Your task to perform on an android device: uninstall "PlayWell" Image 0: 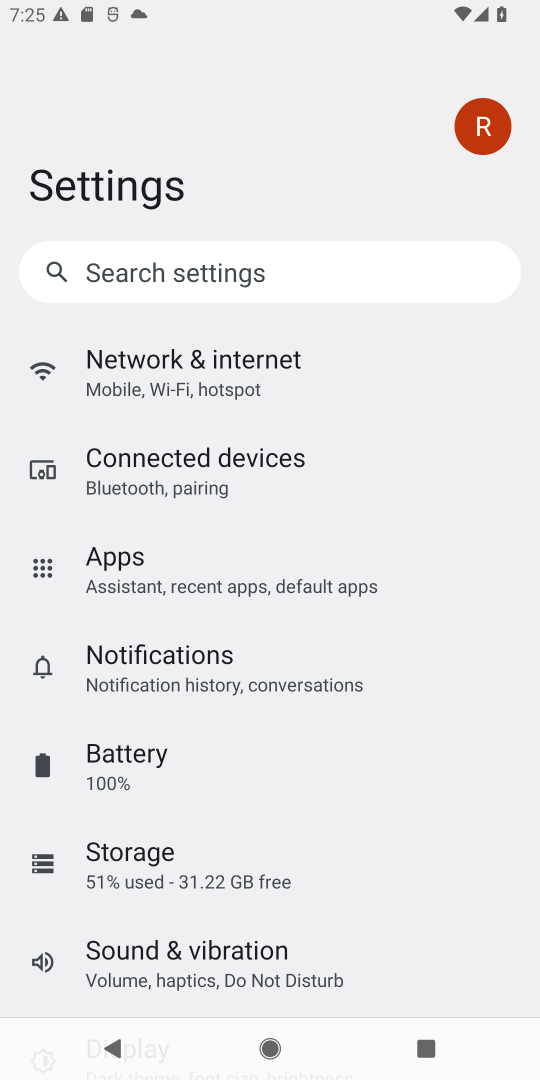
Step 0: press home button
Your task to perform on an android device: uninstall "PlayWell" Image 1: 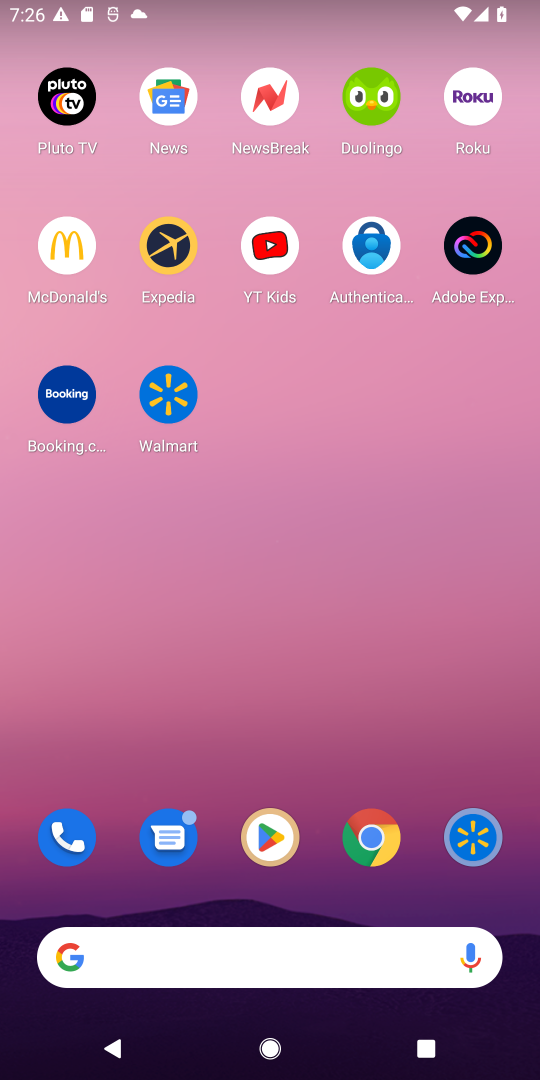
Step 1: click (268, 838)
Your task to perform on an android device: uninstall "PlayWell" Image 2: 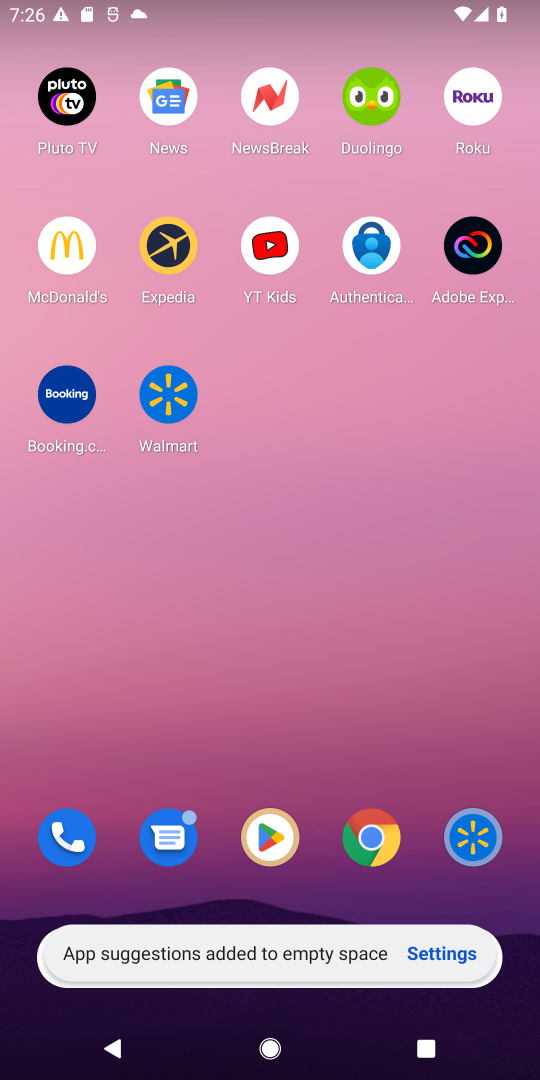
Step 2: click (258, 845)
Your task to perform on an android device: uninstall "PlayWell" Image 3: 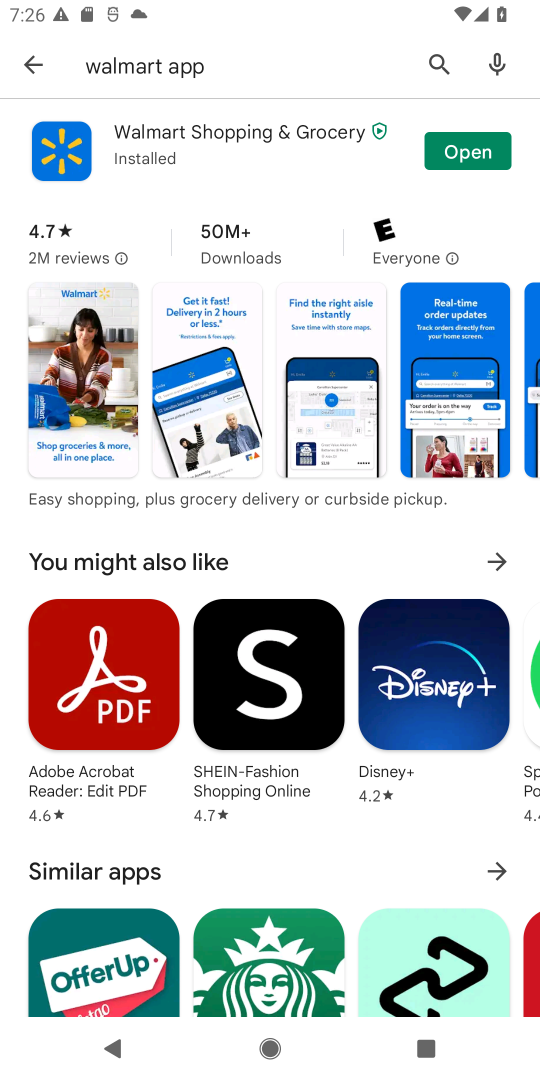
Step 3: click (213, 69)
Your task to perform on an android device: uninstall "PlayWell" Image 4: 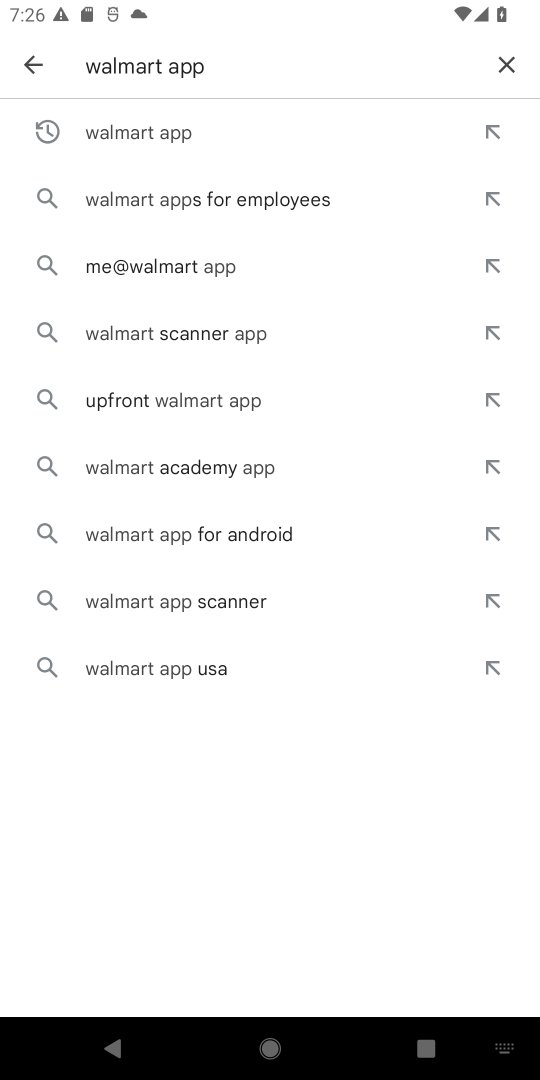
Step 4: click (509, 59)
Your task to perform on an android device: uninstall "PlayWell" Image 5: 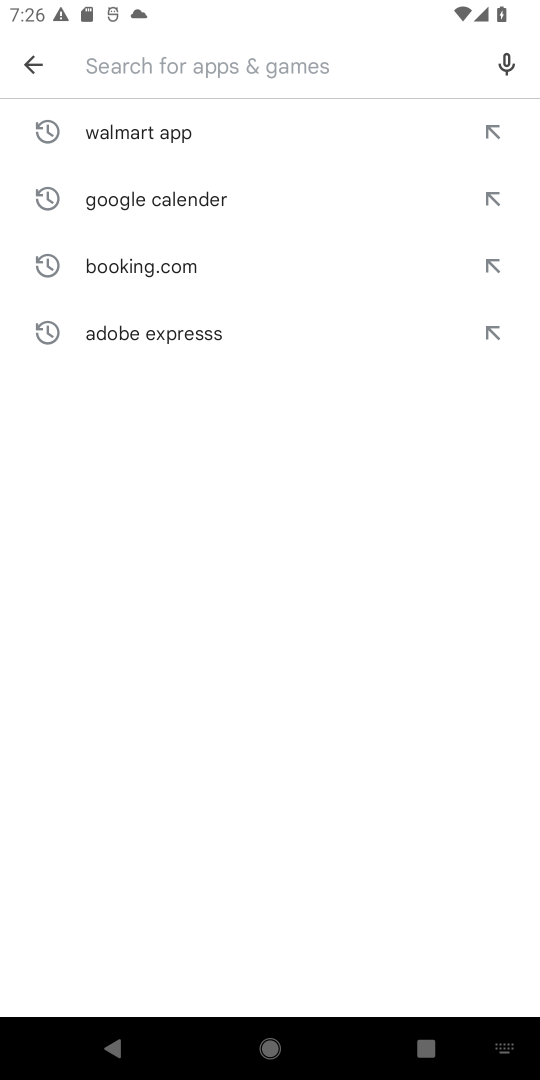
Step 5: type "PLaywell"
Your task to perform on an android device: uninstall "PlayWell" Image 6: 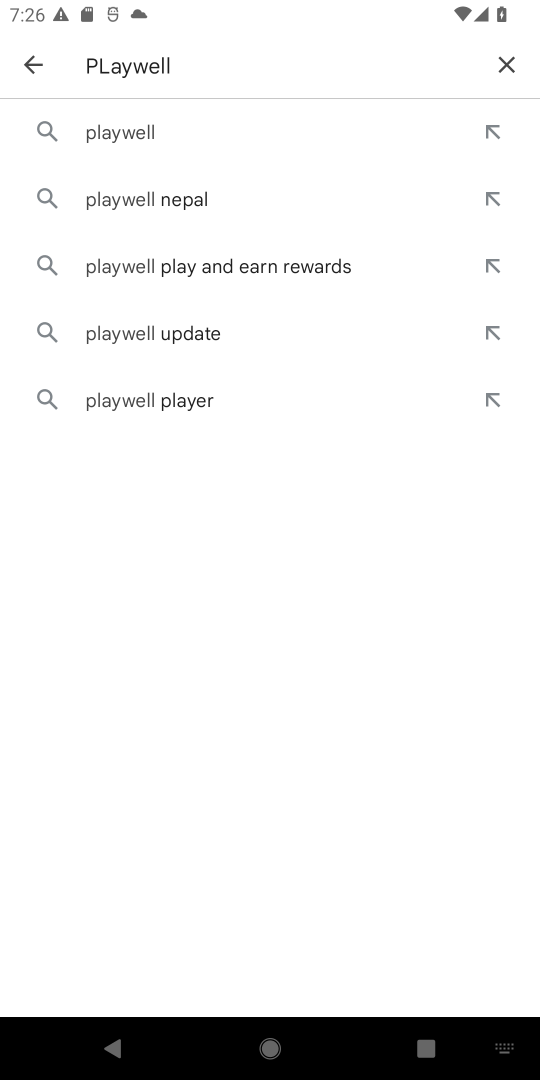
Step 6: click (162, 137)
Your task to perform on an android device: uninstall "PlayWell" Image 7: 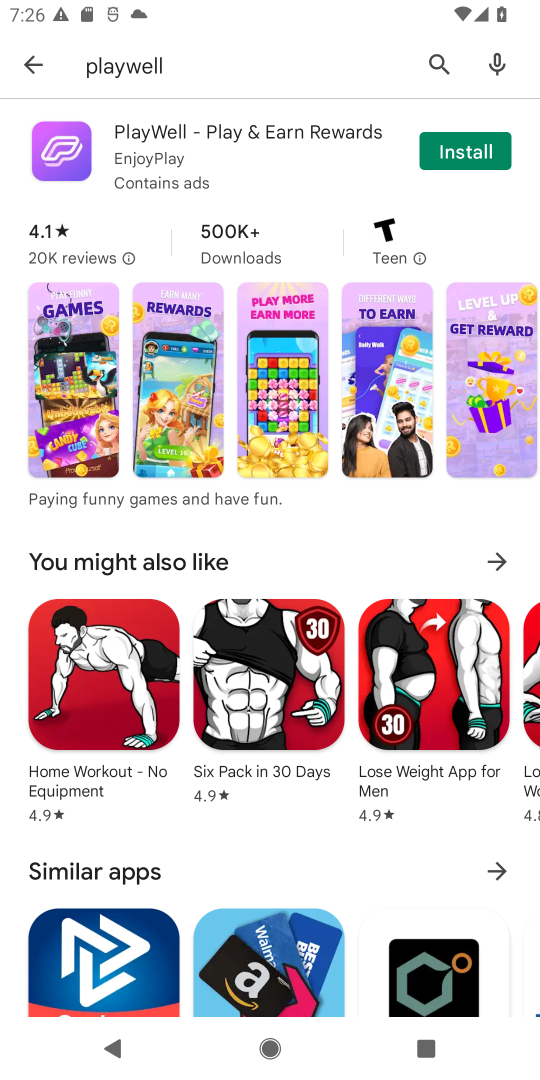
Step 7: task complete